Your task to perform on an android device: turn off notifications in google photos Image 0: 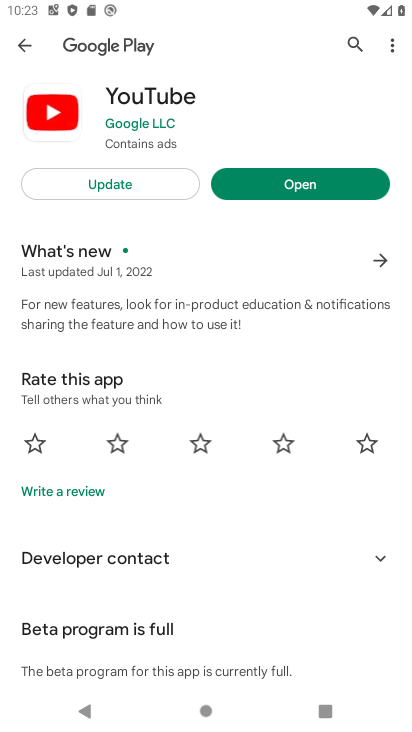
Step 0: press home button
Your task to perform on an android device: turn off notifications in google photos Image 1: 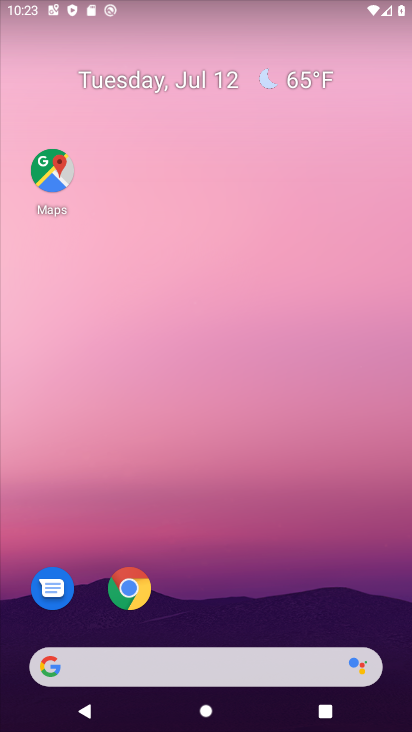
Step 1: drag from (98, 357) to (179, 73)
Your task to perform on an android device: turn off notifications in google photos Image 2: 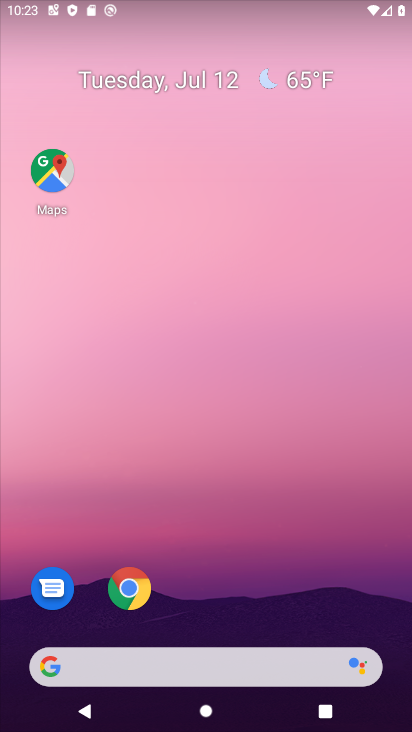
Step 2: drag from (25, 709) to (341, 15)
Your task to perform on an android device: turn off notifications in google photos Image 3: 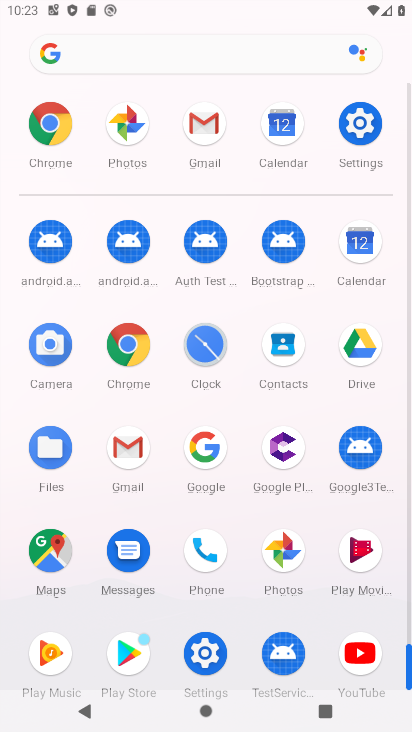
Step 3: click (276, 554)
Your task to perform on an android device: turn off notifications in google photos Image 4: 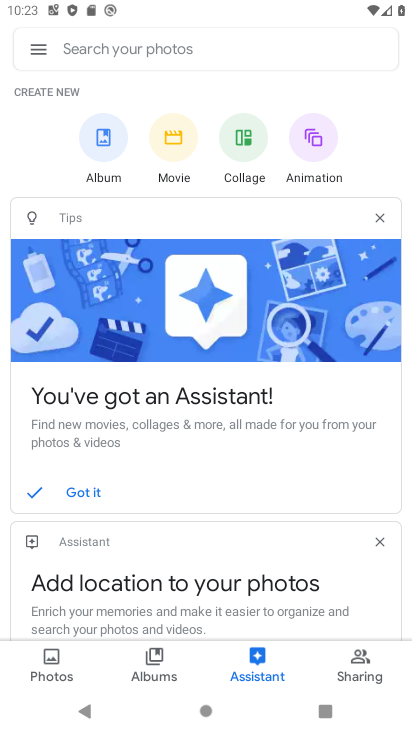
Step 4: click (30, 52)
Your task to perform on an android device: turn off notifications in google photos Image 5: 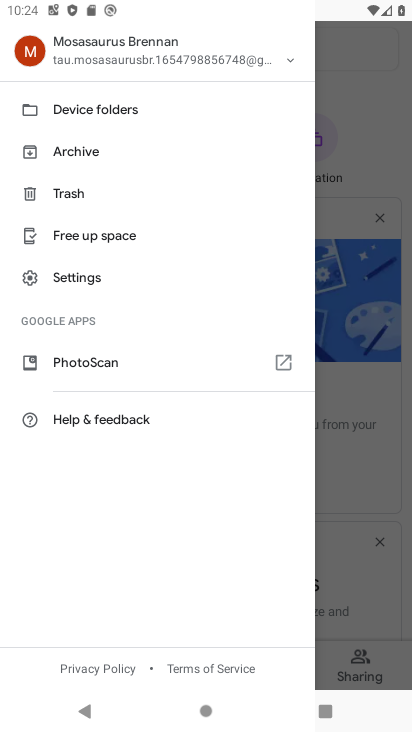
Step 5: click (86, 268)
Your task to perform on an android device: turn off notifications in google photos Image 6: 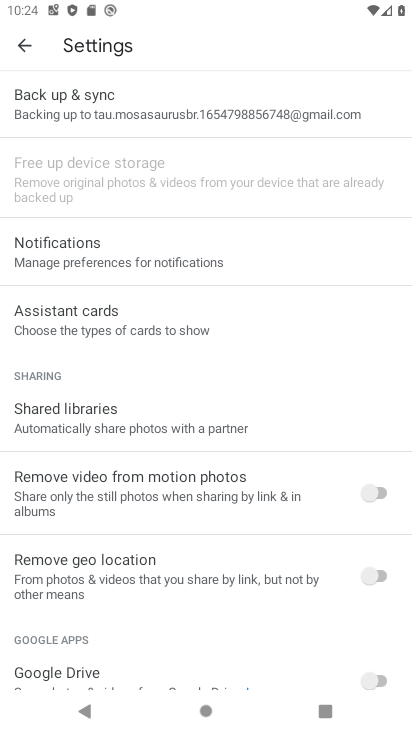
Step 6: click (64, 245)
Your task to perform on an android device: turn off notifications in google photos Image 7: 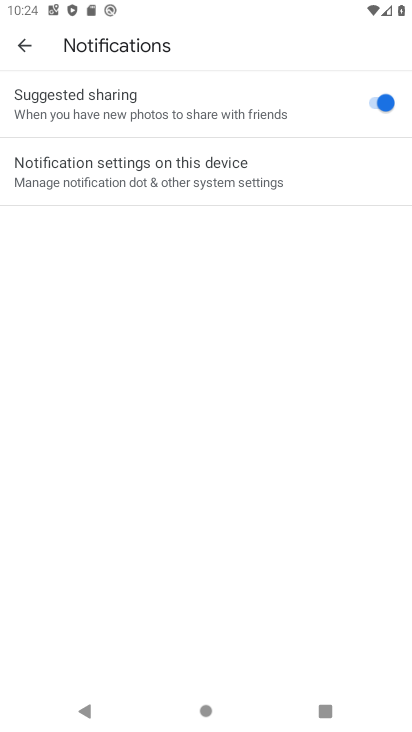
Step 7: click (97, 175)
Your task to perform on an android device: turn off notifications in google photos Image 8: 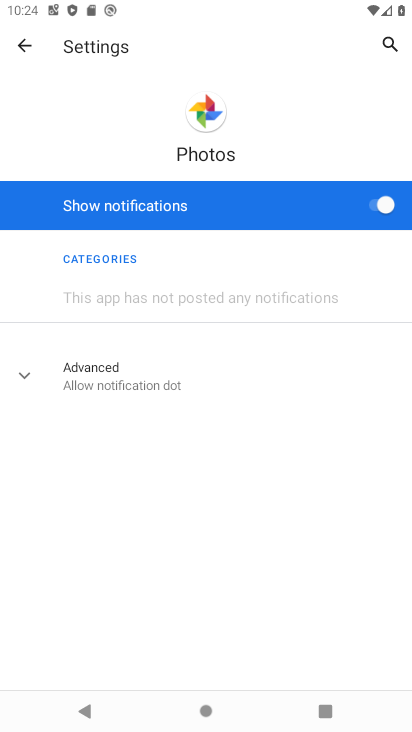
Step 8: click (385, 205)
Your task to perform on an android device: turn off notifications in google photos Image 9: 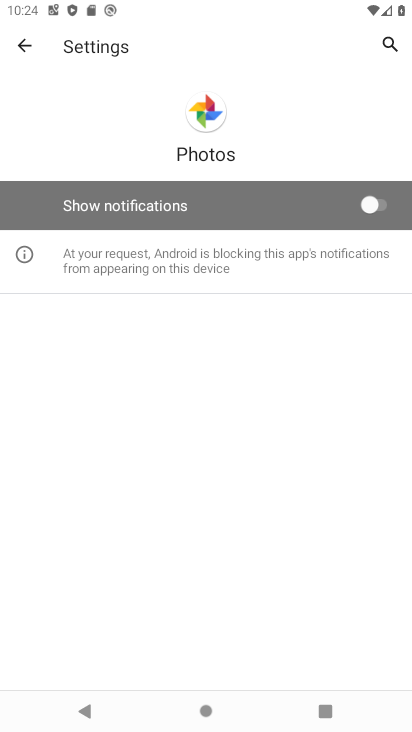
Step 9: task complete